Your task to perform on an android device: turn off improve location accuracy Image 0: 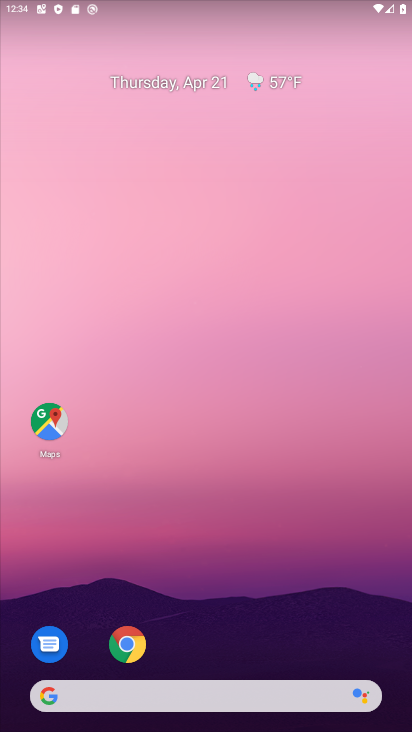
Step 0: drag from (217, 681) to (180, 105)
Your task to perform on an android device: turn off improve location accuracy Image 1: 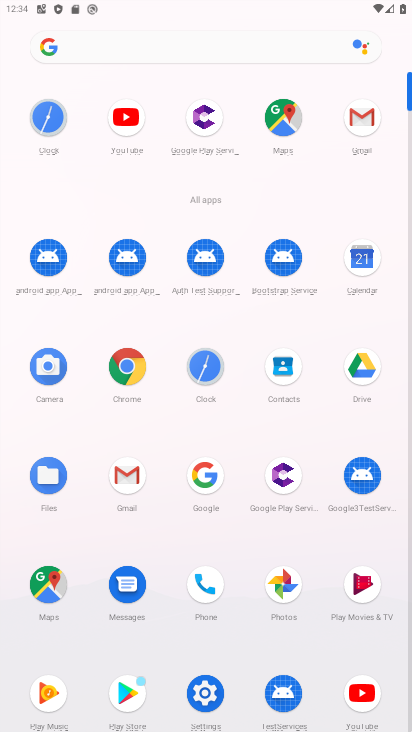
Step 1: click (205, 684)
Your task to perform on an android device: turn off improve location accuracy Image 2: 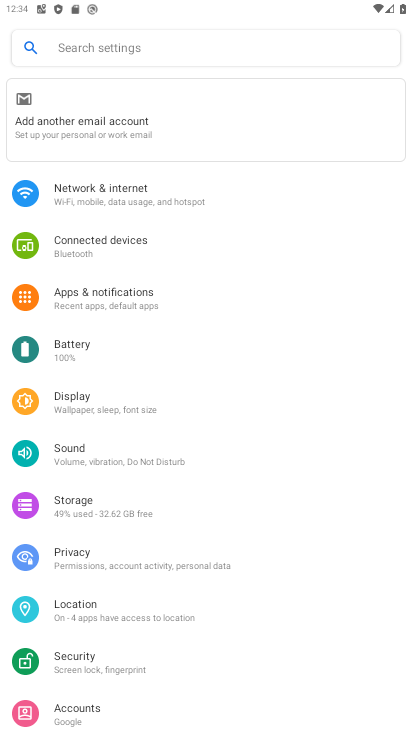
Step 2: click (89, 607)
Your task to perform on an android device: turn off improve location accuracy Image 3: 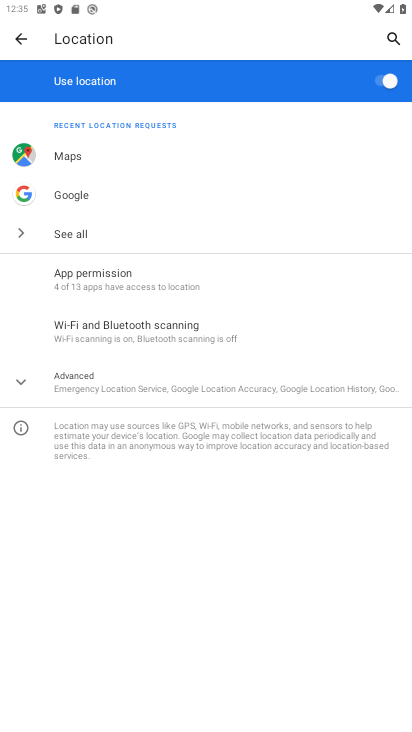
Step 3: click (68, 368)
Your task to perform on an android device: turn off improve location accuracy Image 4: 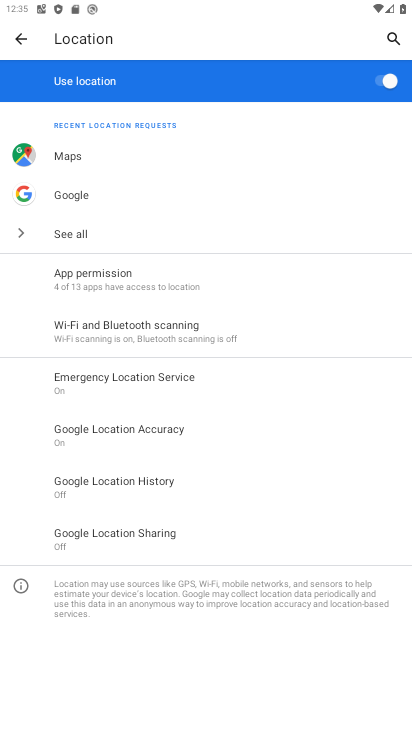
Step 4: click (116, 428)
Your task to perform on an android device: turn off improve location accuracy Image 5: 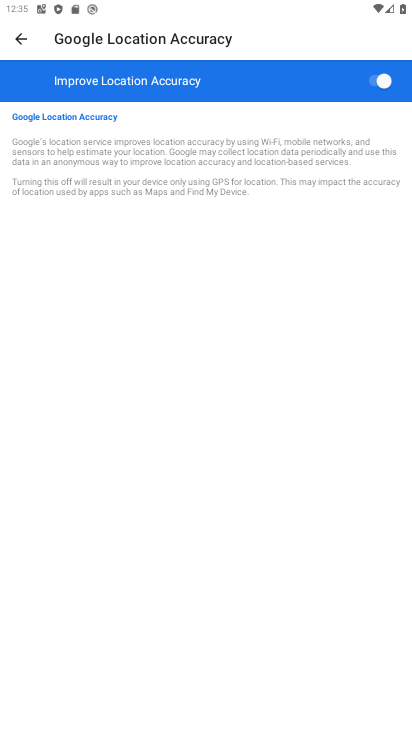
Step 5: click (387, 71)
Your task to perform on an android device: turn off improve location accuracy Image 6: 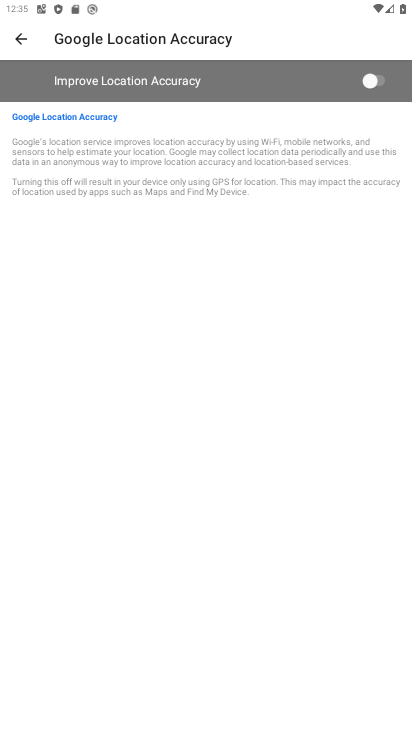
Step 6: task complete